Your task to perform on an android device: Go to Android settings Image 0: 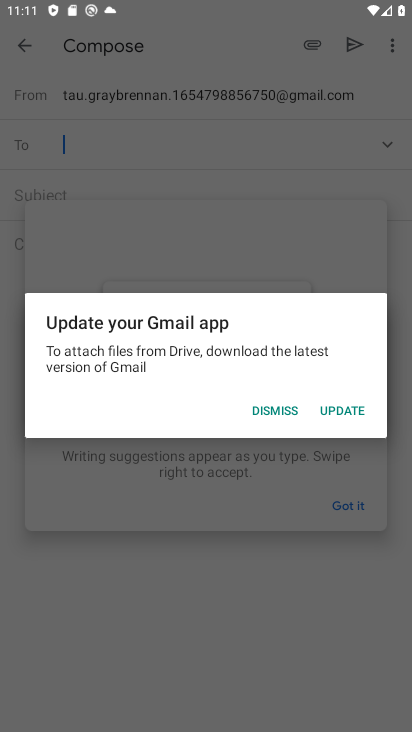
Step 0: press home button
Your task to perform on an android device: Go to Android settings Image 1: 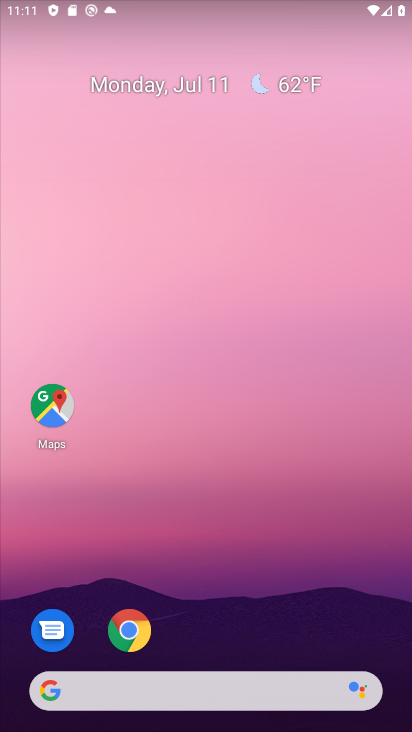
Step 1: drag from (299, 705) to (357, 1)
Your task to perform on an android device: Go to Android settings Image 2: 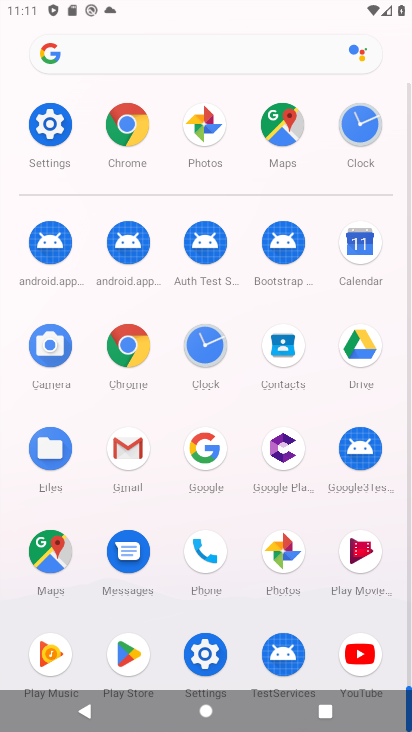
Step 2: click (52, 129)
Your task to perform on an android device: Go to Android settings Image 3: 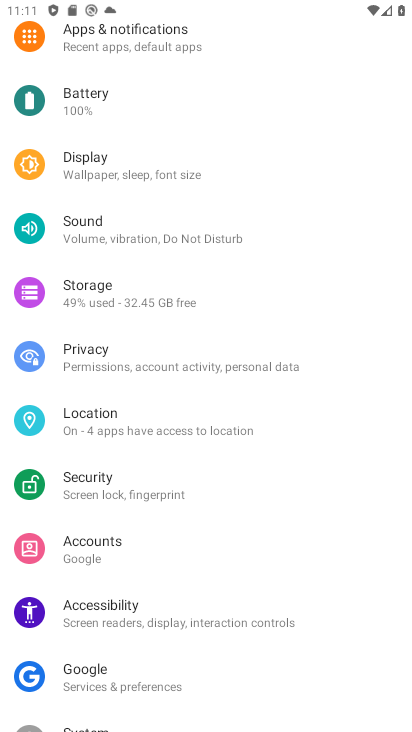
Step 3: drag from (160, 671) to (194, 76)
Your task to perform on an android device: Go to Android settings Image 4: 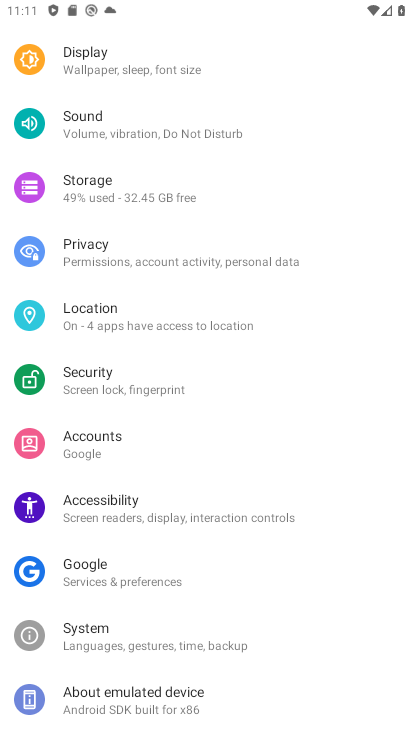
Step 4: click (197, 702)
Your task to perform on an android device: Go to Android settings Image 5: 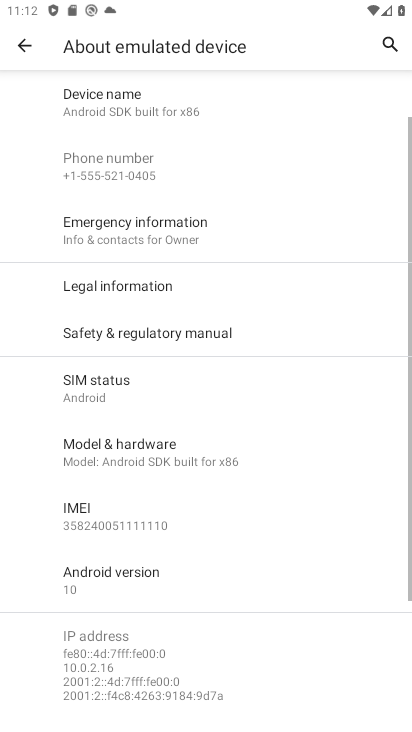
Step 5: click (151, 585)
Your task to perform on an android device: Go to Android settings Image 6: 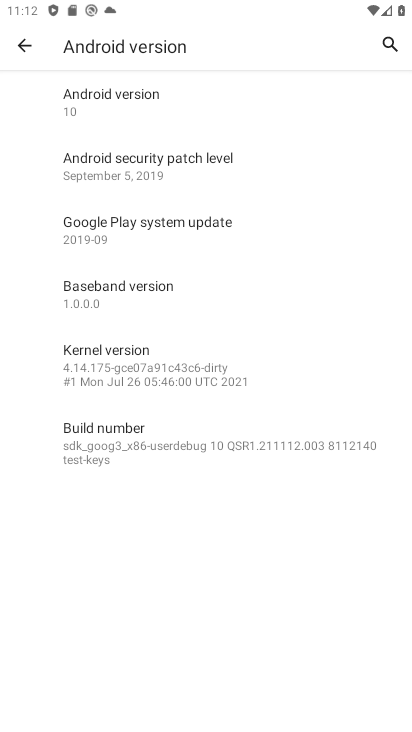
Step 6: task complete